Your task to perform on an android device: Go to CNN.com Image 0: 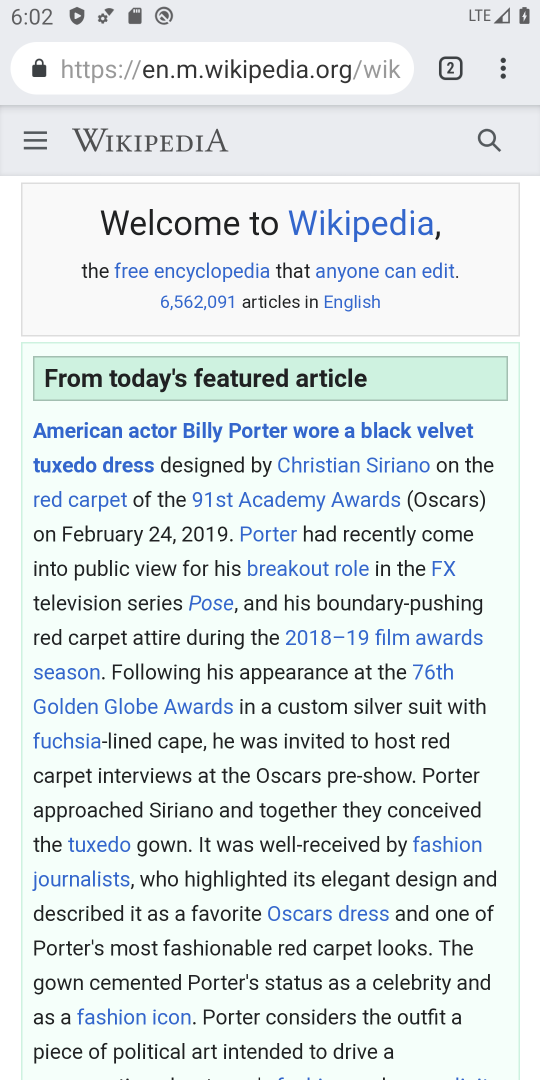
Step 0: press home button
Your task to perform on an android device: Go to CNN.com Image 1: 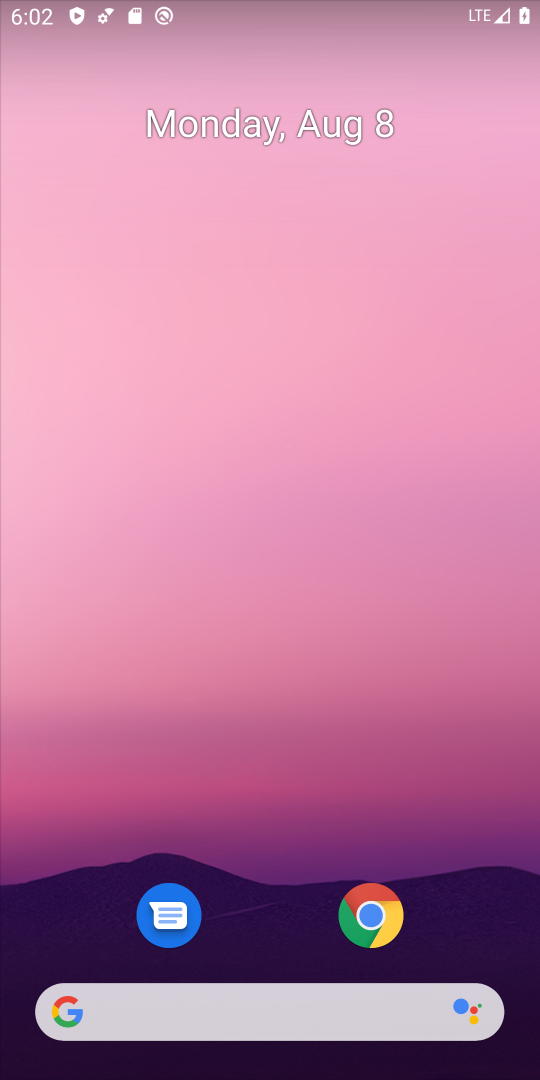
Step 1: click (376, 910)
Your task to perform on an android device: Go to CNN.com Image 2: 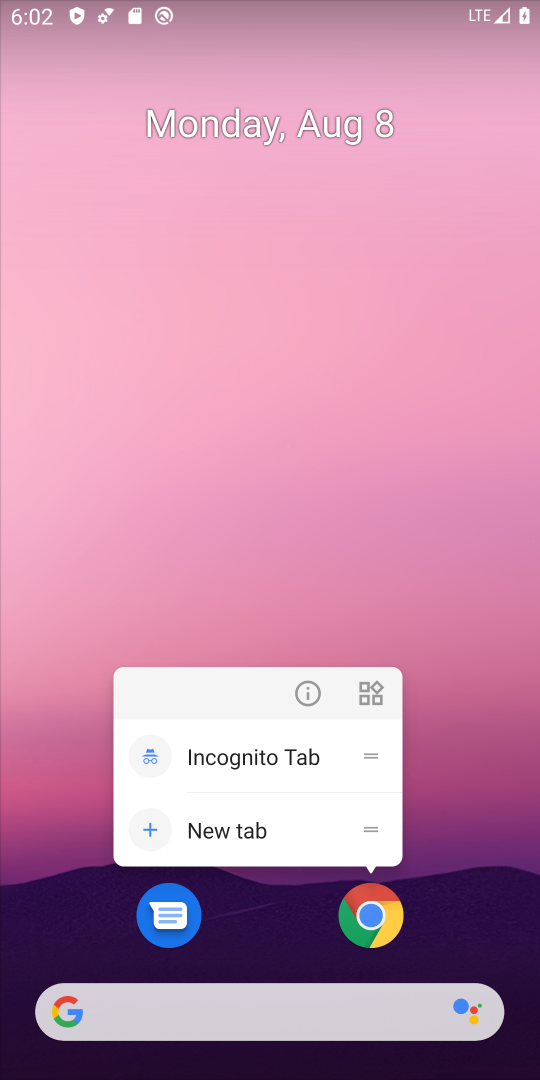
Step 2: click (263, 479)
Your task to perform on an android device: Go to CNN.com Image 3: 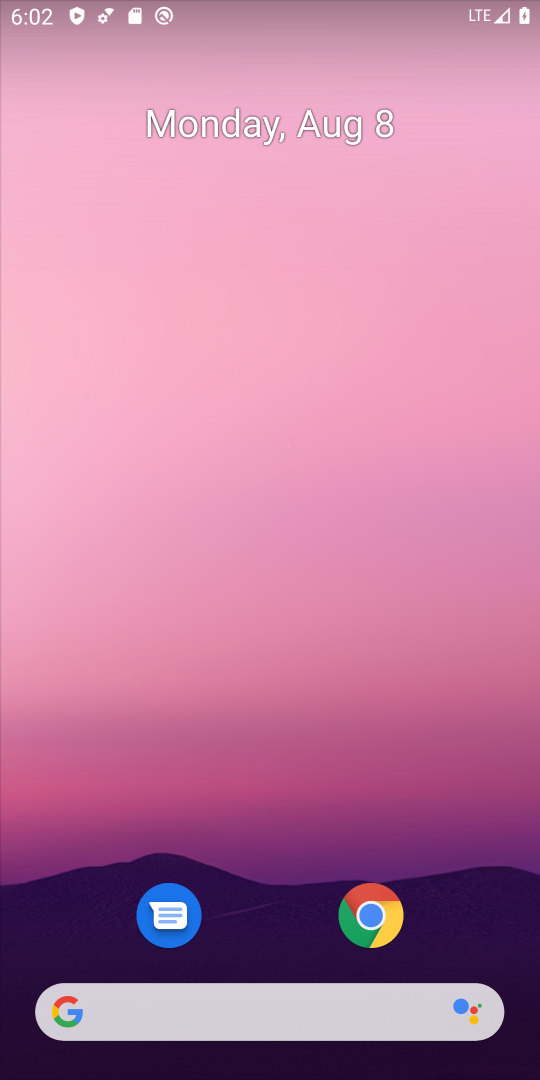
Step 3: click (378, 909)
Your task to perform on an android device: Go to CNN.com Image 4: 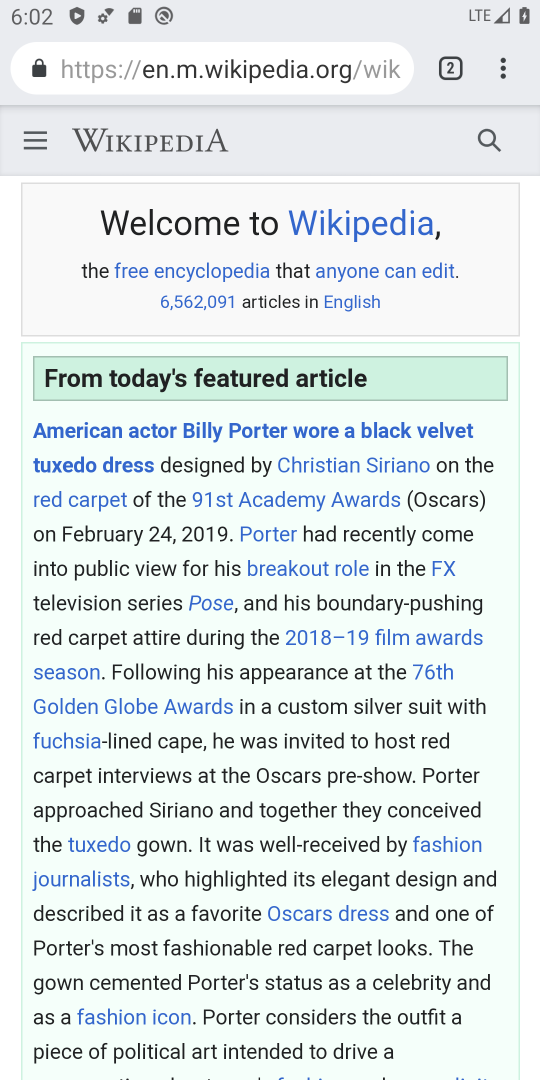
Step 4: click (506, 60)
Your task to perform on an android device: Go to CNN.com Image 5: 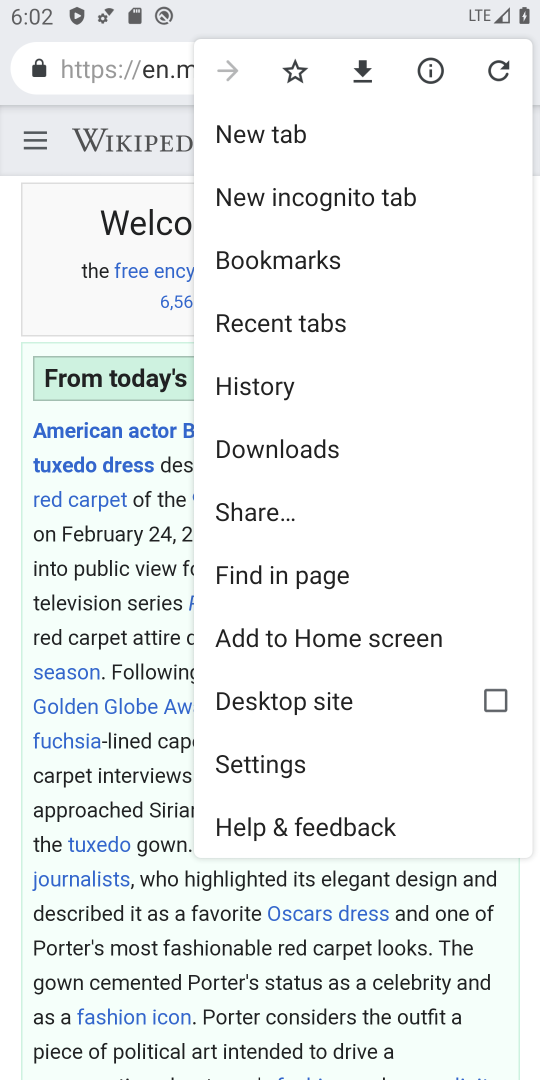
Step 5: click (271, 133)
Your task to perform on an android device: Go to CNN.com Image 6: 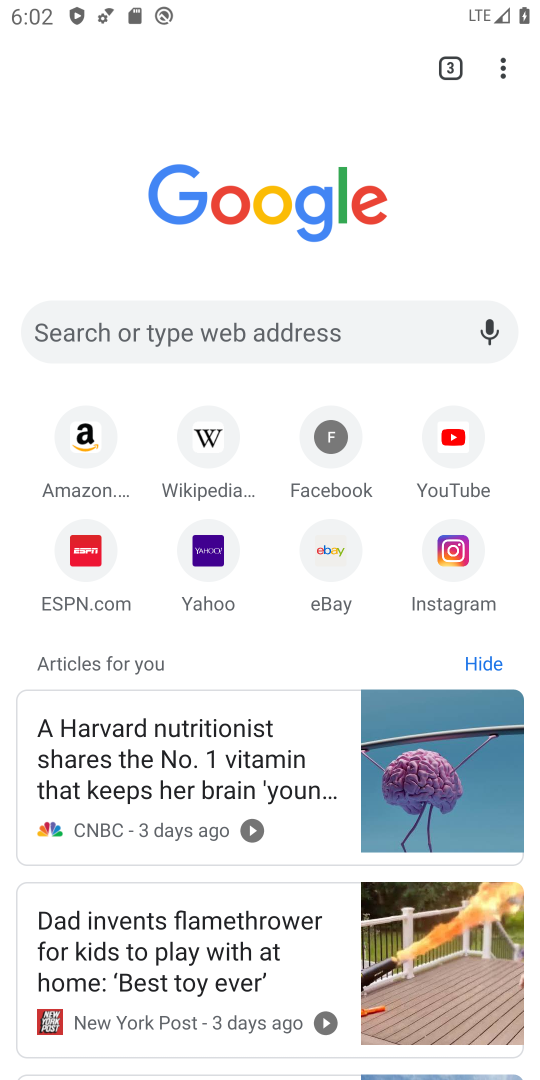
Step 6: click (271, 133)
Your task to perform on an android device: Go to CNN.com Image 7: 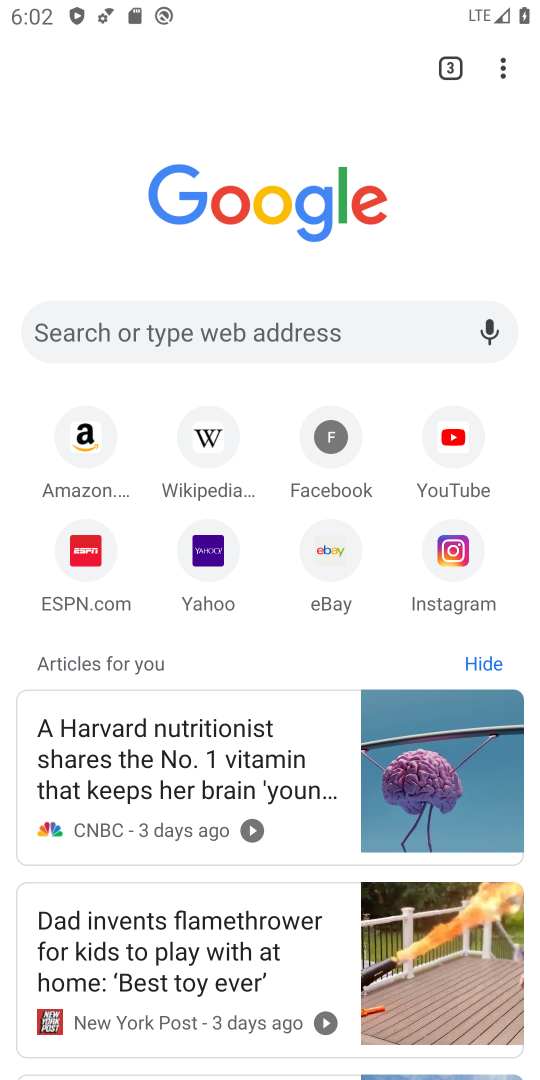
Step 7: click (276, 341)
Your task to perform on an android device: Go to CNN.com Image 8: 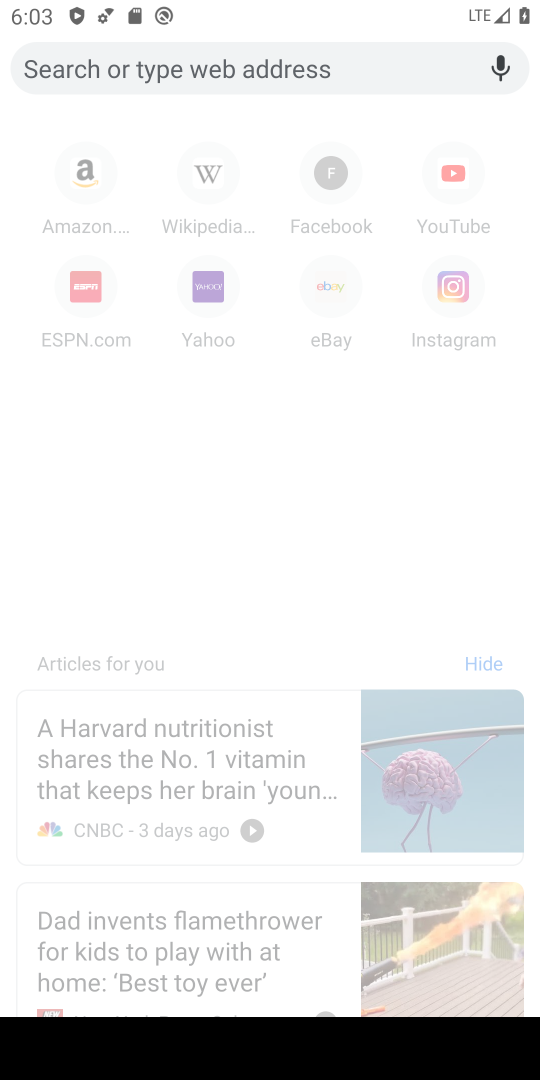
Step 8: type "cnn.com"
Your task to perform on an android device: Go to CNN.com Image 9: 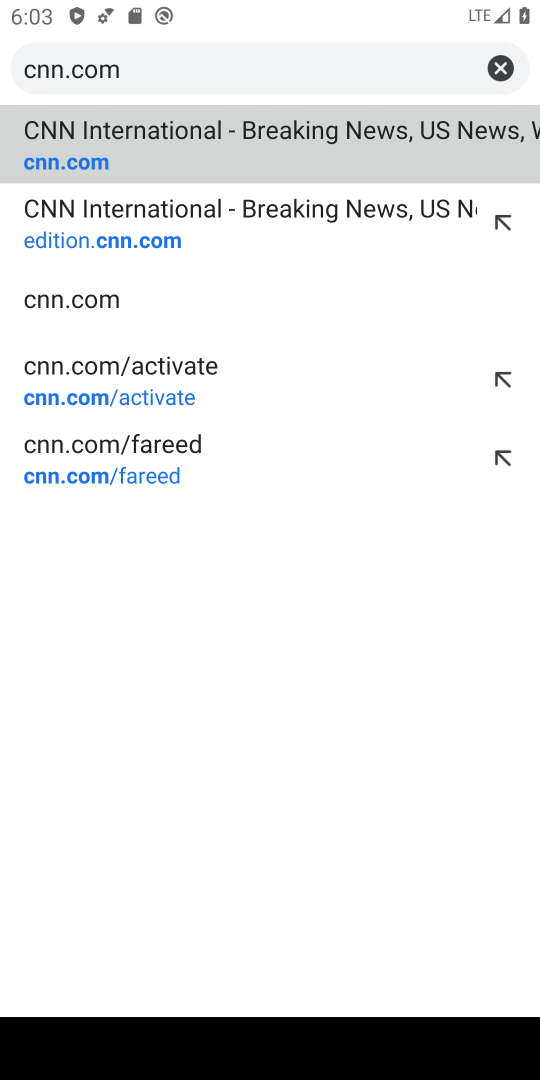
Step 9: click (192, 141)
Your task to perform on an android device: Go to CNN.com Image 10: 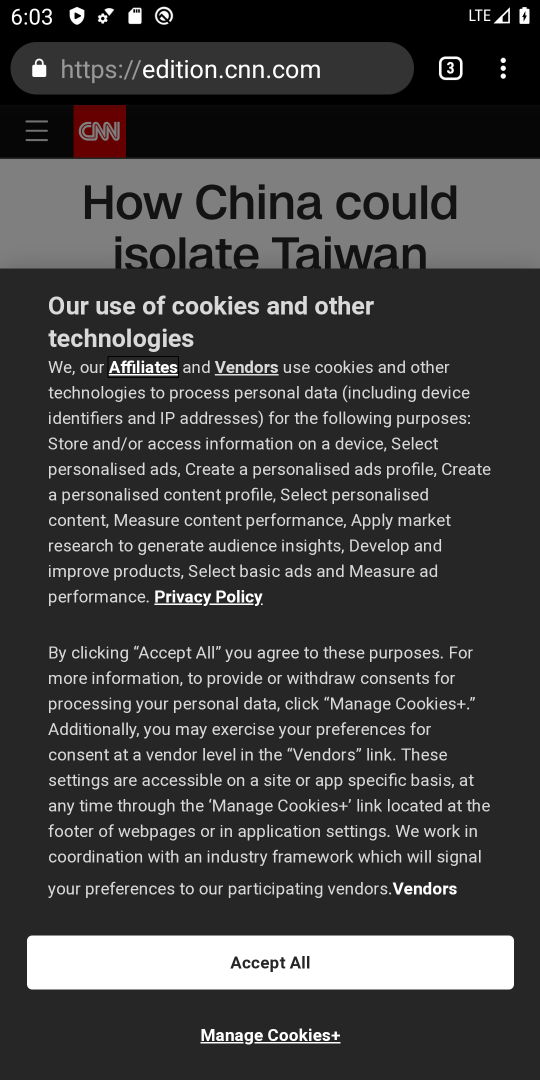
Step 10: click (279, 961)
Your task to perform on an android device: Go to CNN.com Image 11: 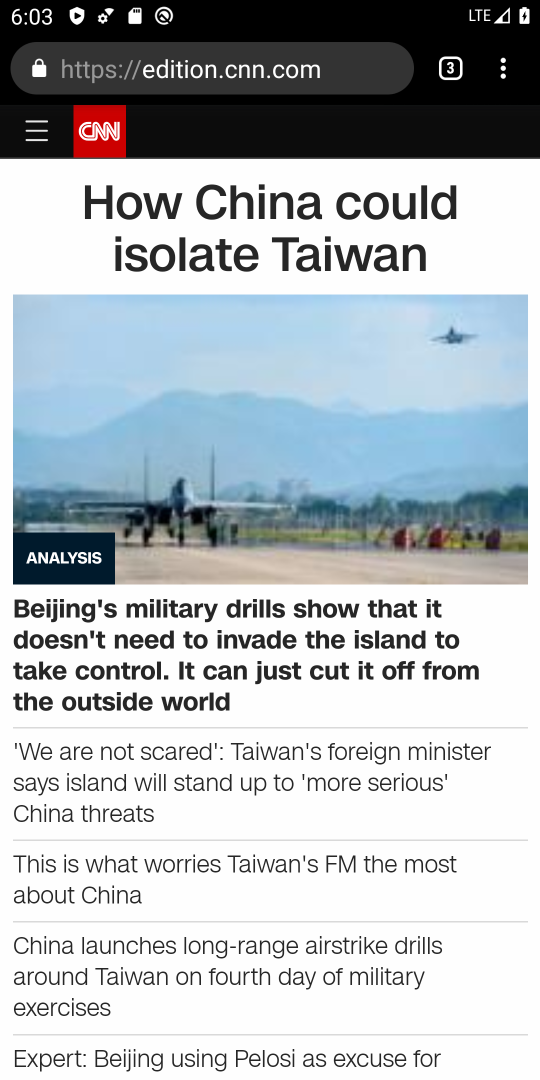
Step 11: task complete